Your task to perform on an android device: Open sound settings Image 0: 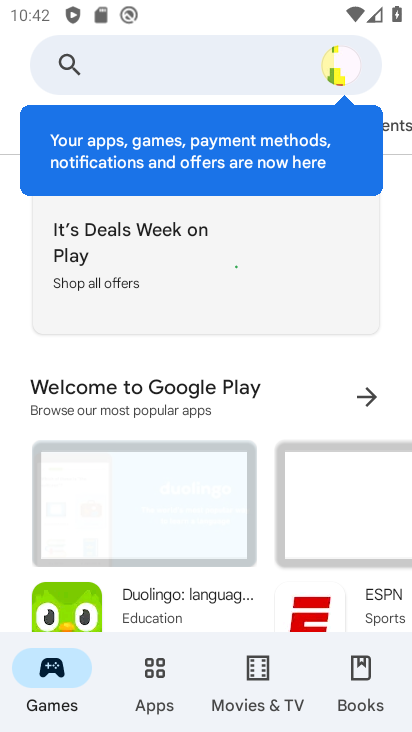
Step 0: press home button
Your task to perform on an android device: Open sound settings Image 1: 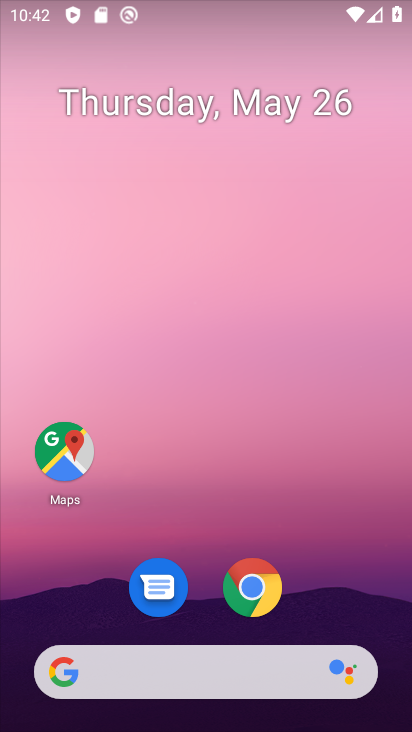
Step 1: drag from (262, 577) to (247, 207)
Your task to perform on an android device: Open sound settings Image 2: 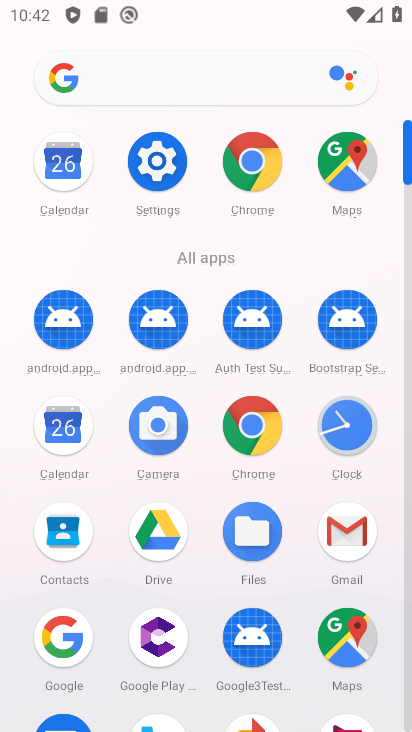
Step 2: click (149, 164)
Your task to perform on an android device: Open sound settings Image 3: 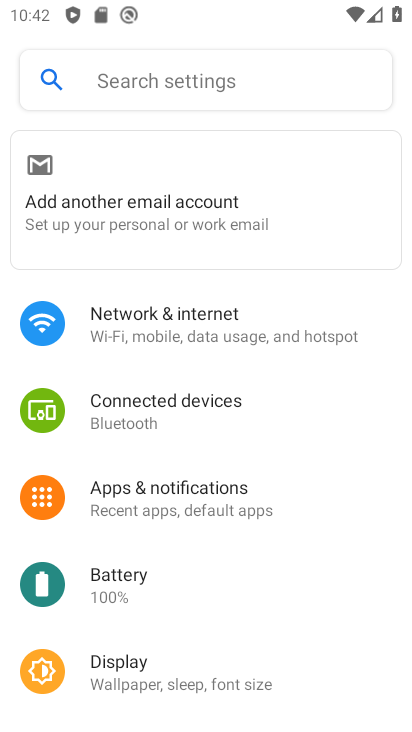
Step 3: click (166, 69)
Your task to perform on an android device: Open sound settings Image 4: 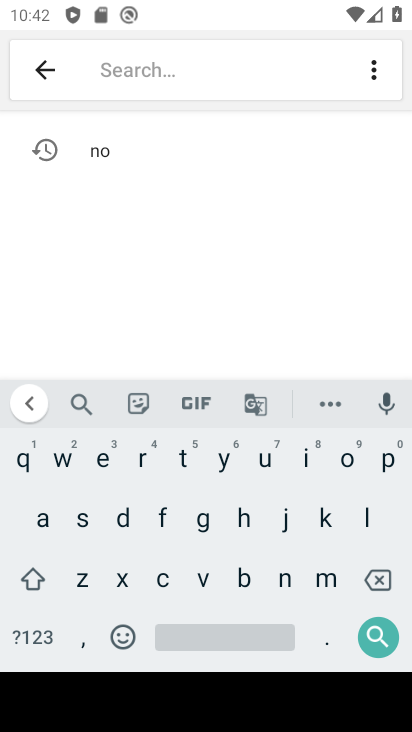
Step 4: click (84, 524)
Your task to perform on an android device: Open sound settings Image 5: 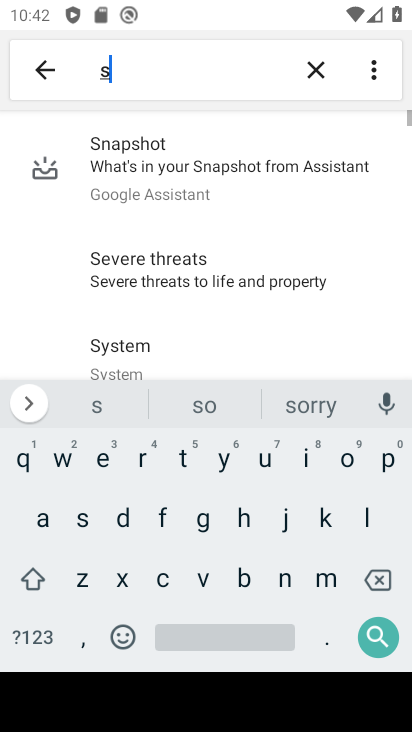
Step 5: click (350, 452)
Your task to perform on an android device: Open sound settings Image 6: 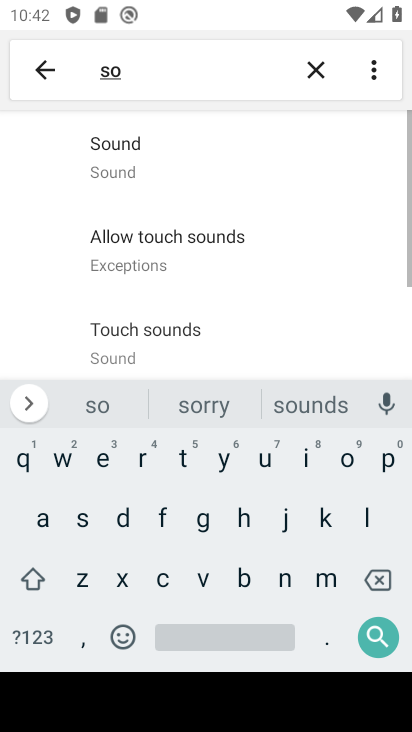
Step 6: click (262, 464)
Your task to perform on an android device: Open sound settings Image 7: 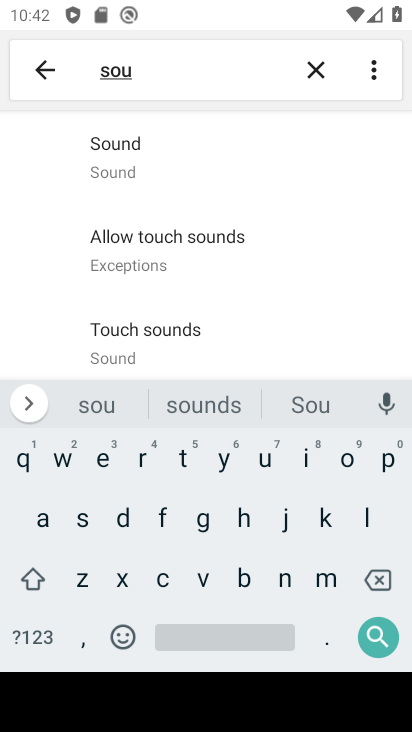
Step 7: click (131, 146)
Your task to perform on an android device: Open sound settings Image 8: 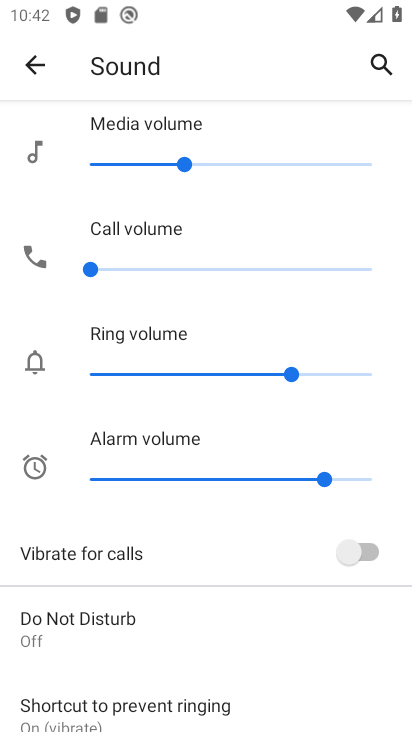
Step 8: task complete